Your task to perform on an android device: choose inbox layout in the gmail app Image 0: 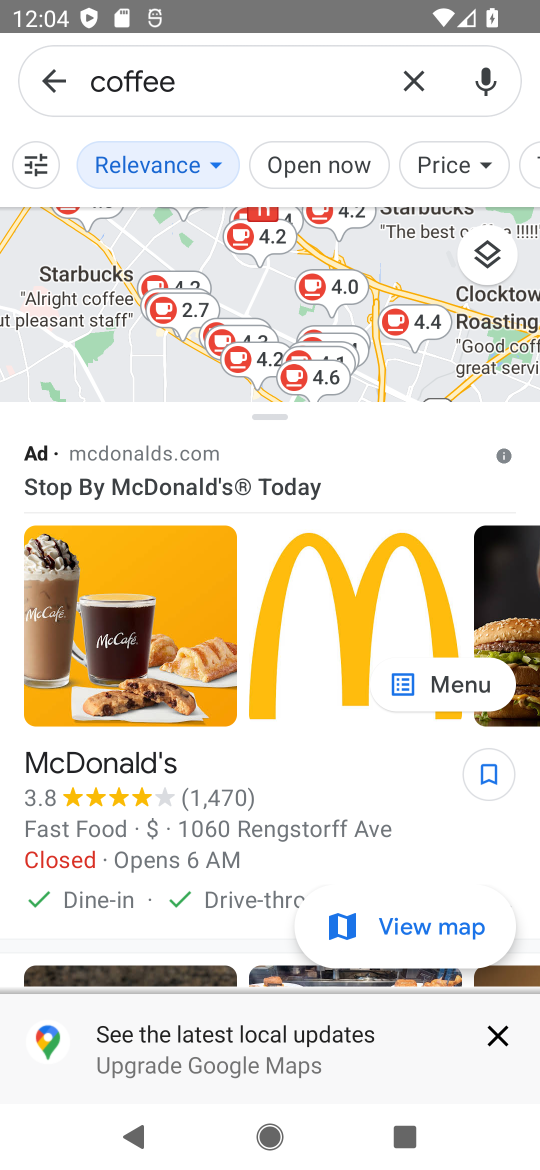
Step 0: press home button
Your task to perform on an android device: choose inbox layout in the gmail app Image 1: 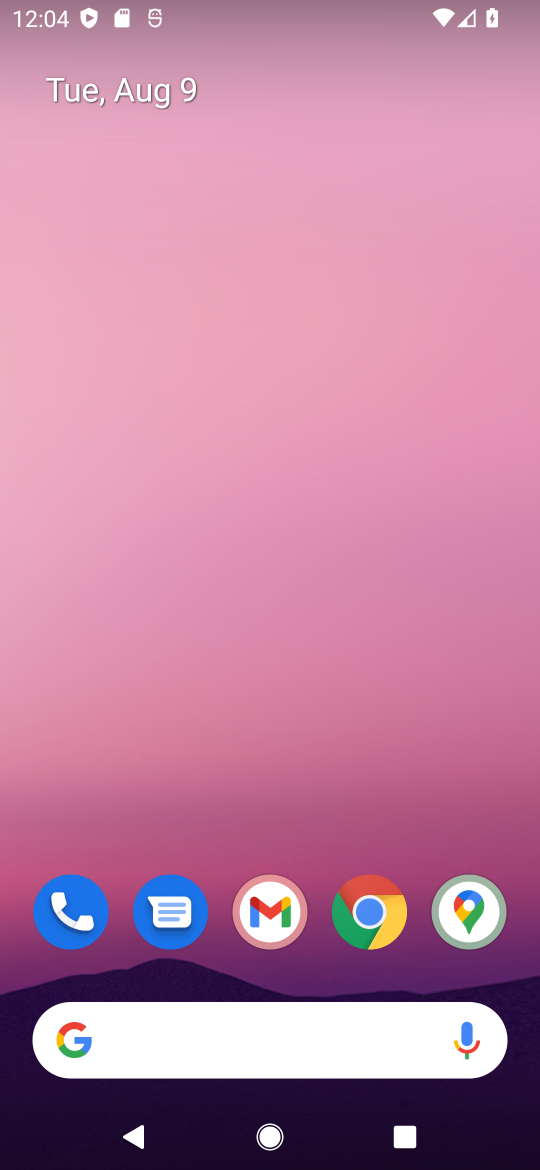
Step 1: drag from (267, 1005) to (341, 183)
Your task to perform on an android device: choose inbox layout in the gmail app Image 2: 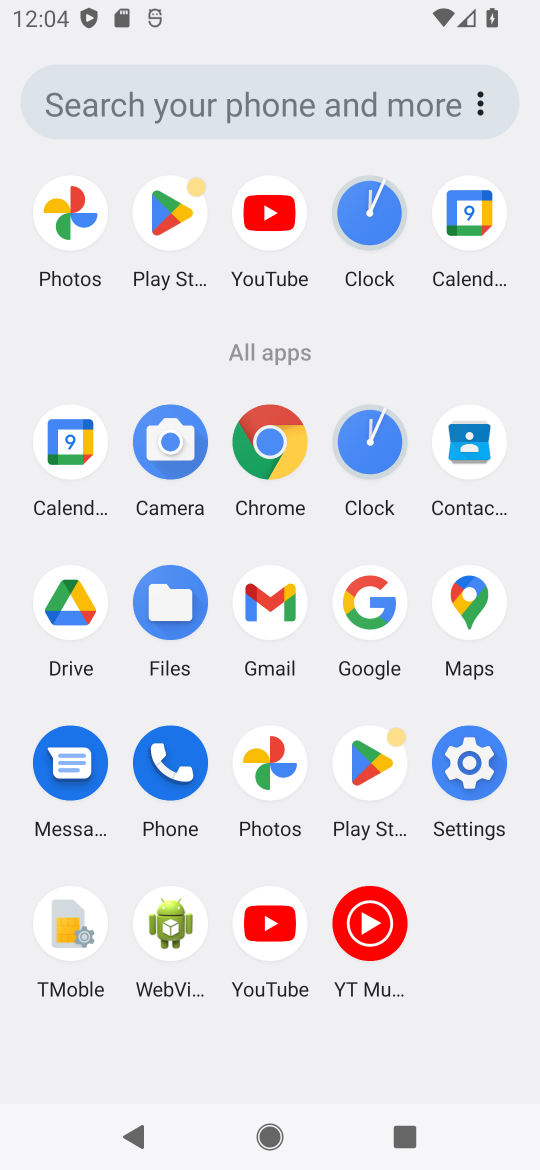
Step 2: click (276, 611)
Your task to perform on an android device: choose inbox layout in the gmail app Image 3: 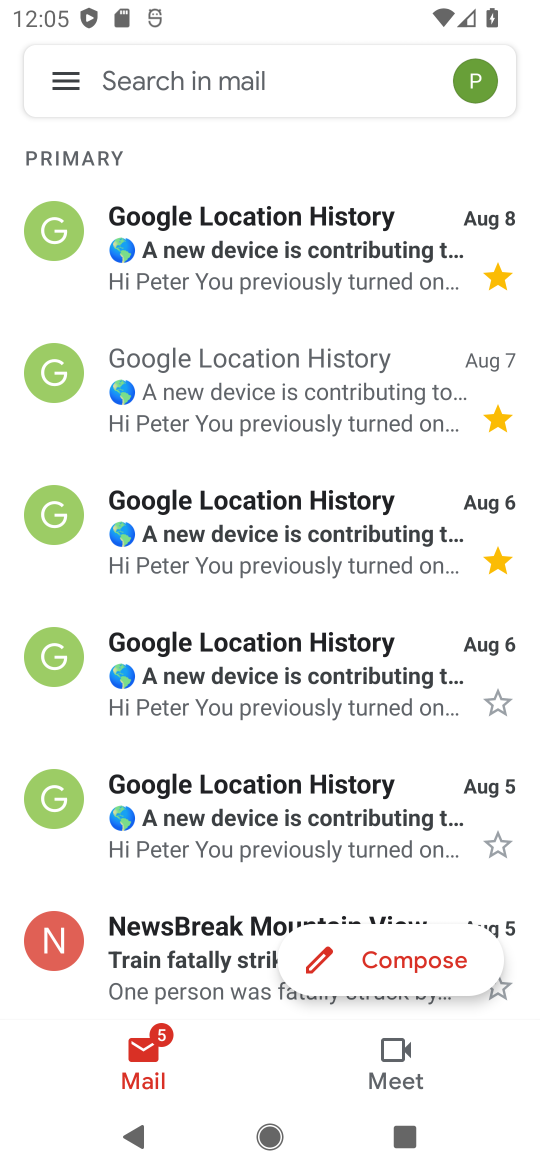
Step 3: click (59, 89)
Your task to perform on an android device: choose inbox layout in the gmail app Image 4: 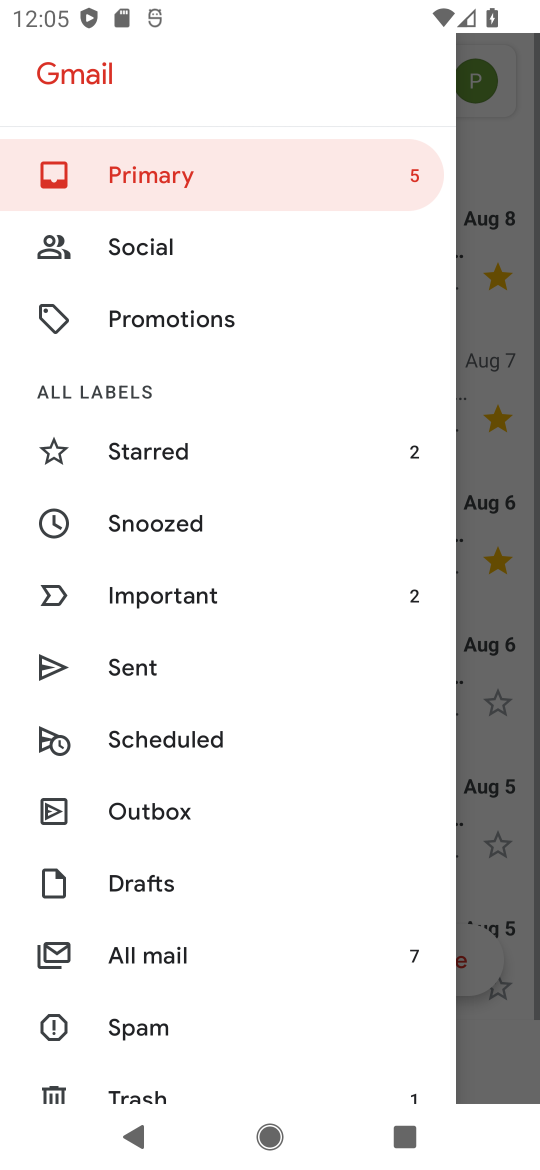
Step 4: drag from (150, 982) to (191, 415)
Your task to perform on an android device: choose inbox layout in the gmail app Image 5: 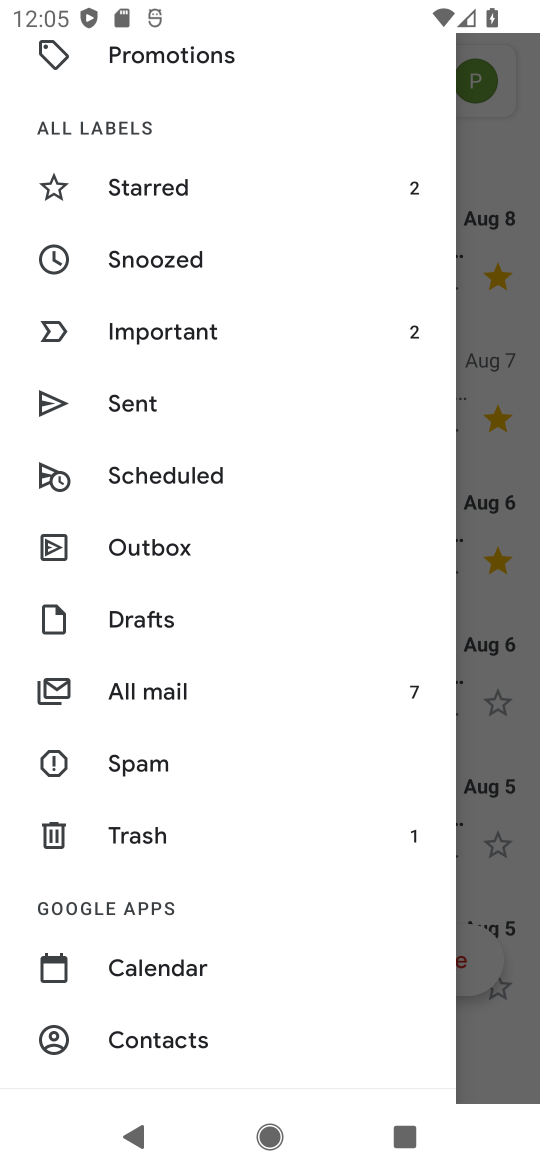
Step 5: drag from (165, 1049) to (165, 498)
Your task to perform on an android device: choose inbox layout in the gmail app Image 6: 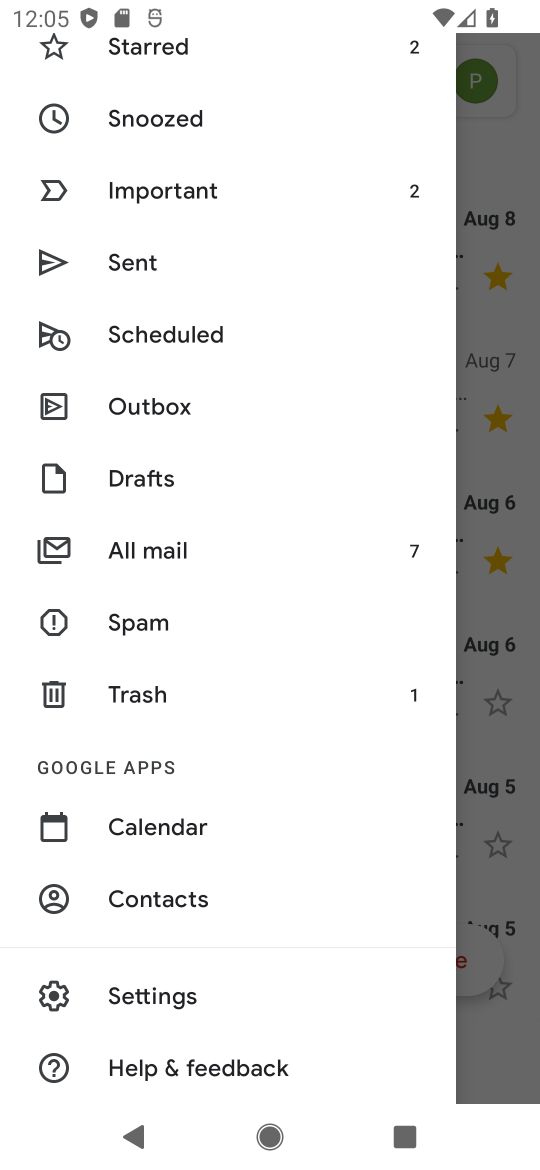
Step 6: click (158, 987)
Your task to perform on an android device: choose inbox layout in the gmail app Image 7: 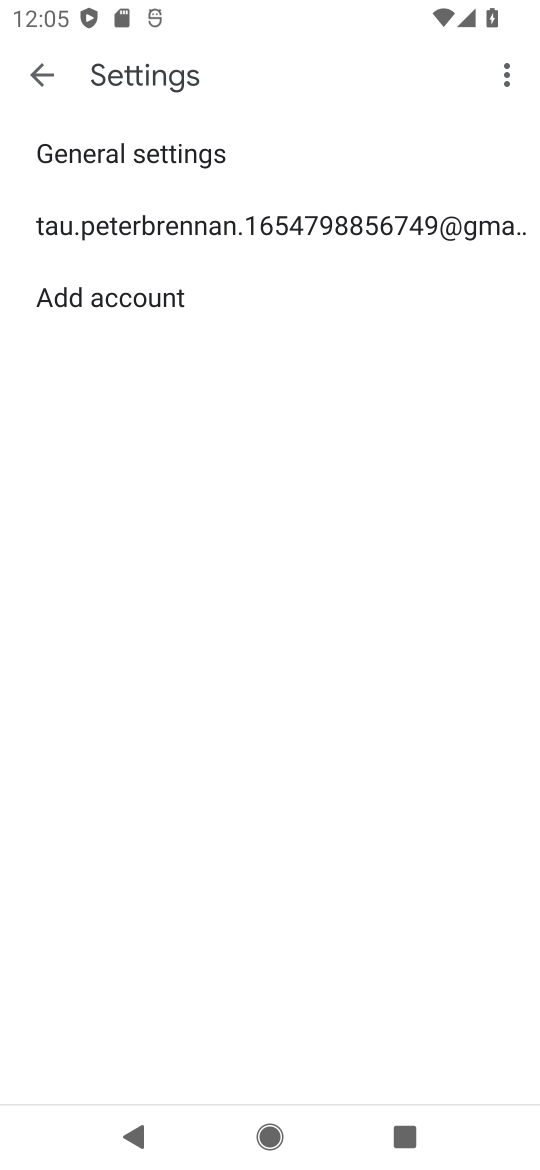
Step 7: click (84, 230)
Your task to perform on an android device: choose inbox layout in the gmail app Image 8: 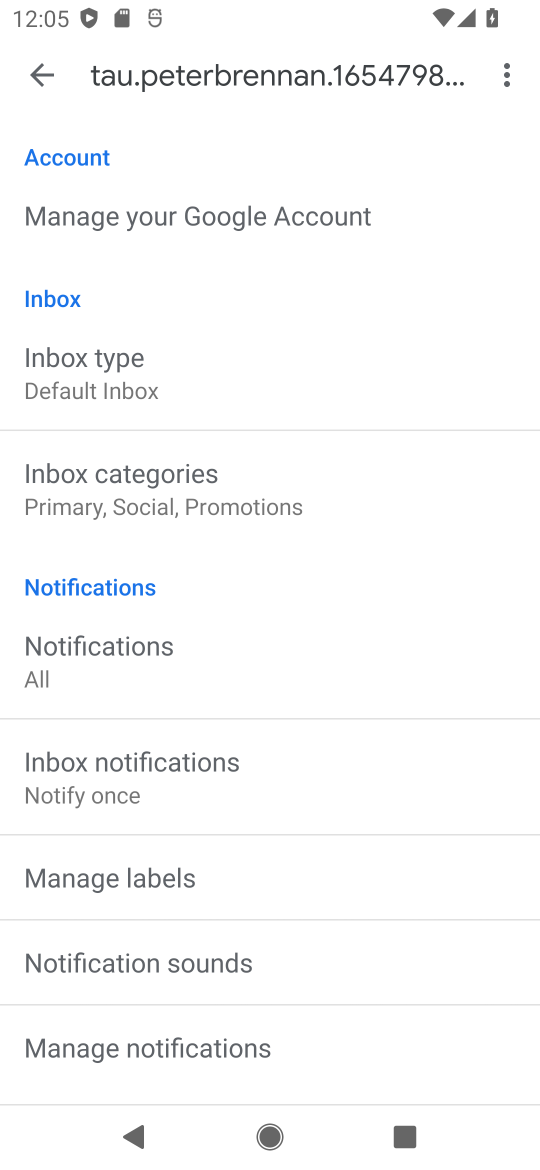
Step 8: click (117, 383)
Your task to perform on an android device: choose inbox layout in the gmail app Image 9: 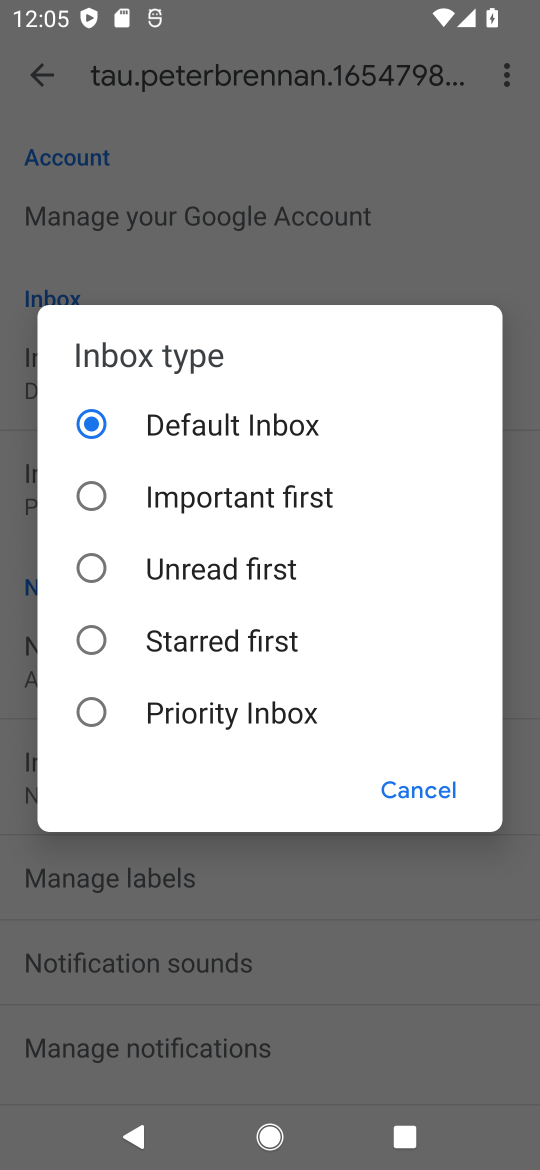
Step 9: click (242, 700)
Your task to perform on an android device: choose inbox layout in the gmail app Image 10: 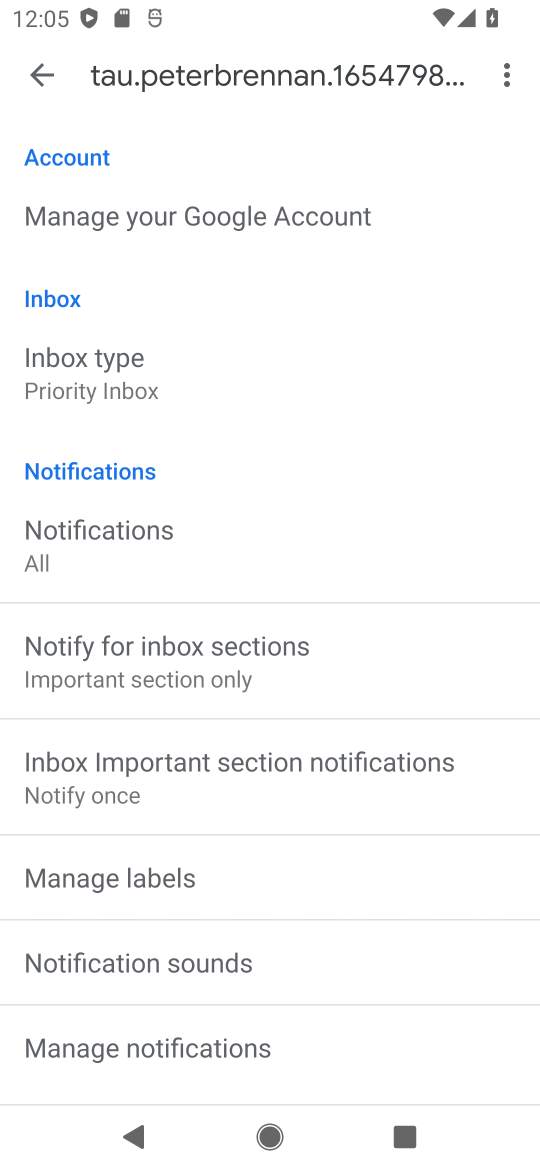
Step 10: task complete